Your task to perform on an android device: turn on location history Image 0: 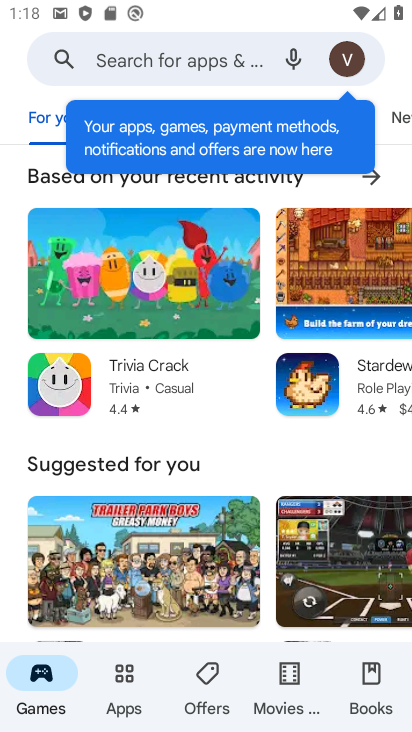
Step 0: press home button
Your task to perform on an android device: turn on location history Image 1: 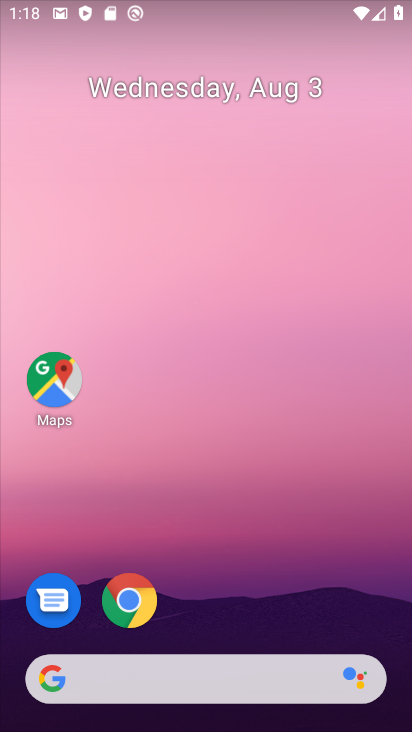
Step 1: drag from (251, 575) to (251, 4)
Your task to perform on an android device: turn on location history Image 2: 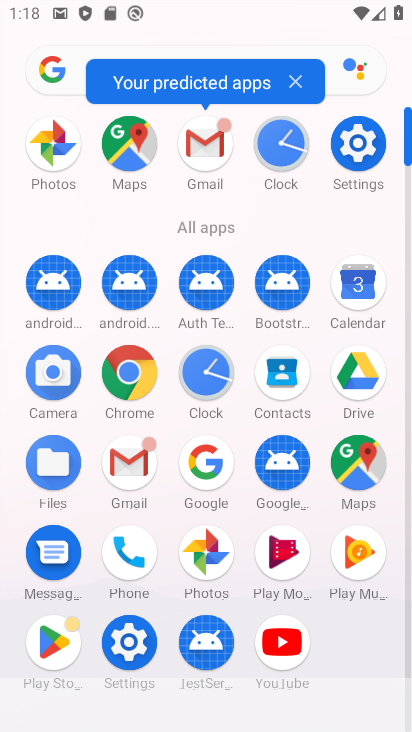
Step 2: click (358, 131)
Your task to perform on an android device: turn on location history Image 3: 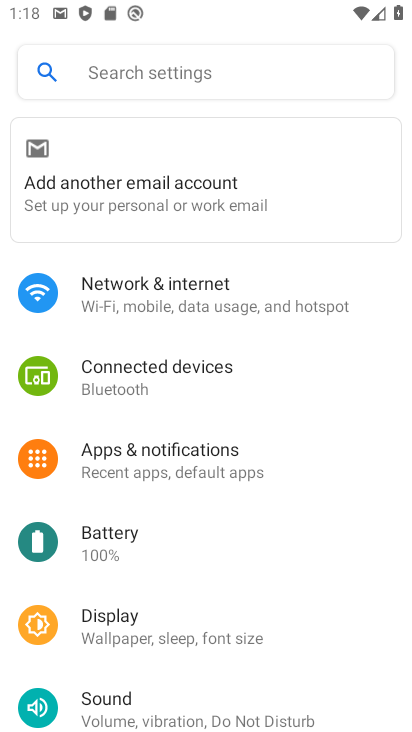
Step 3: drag from (188, 627) to (161, 119)
Your task to perform on an android device: turn on location history Image 4: 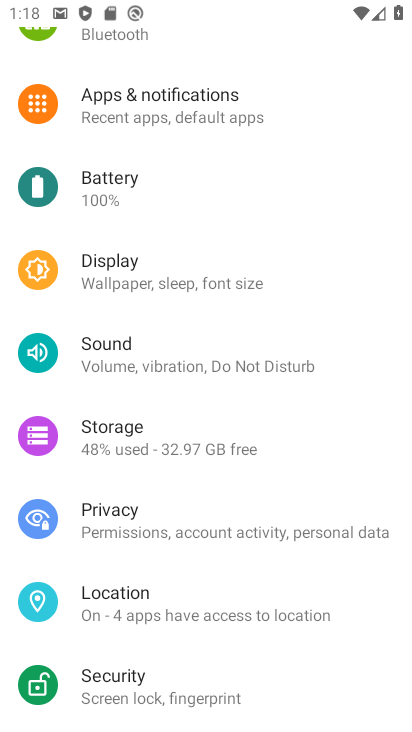
Step 4: click (121, 610)
Your task to perform on an android device: turn on location history Image 5: 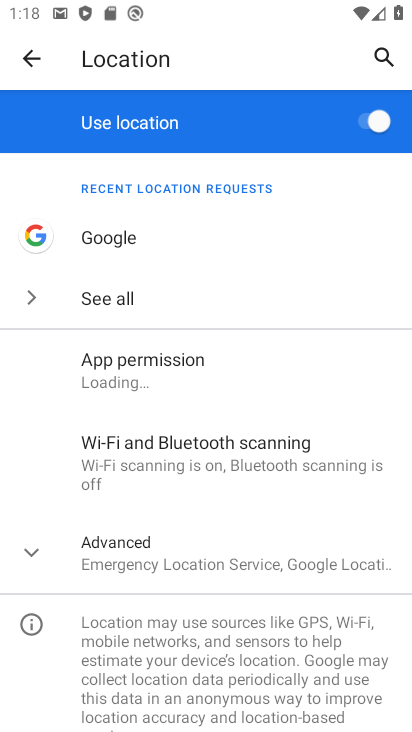
Step 5: click (227, 553)
Your task to perform on an android device: turn on location history Image 6: 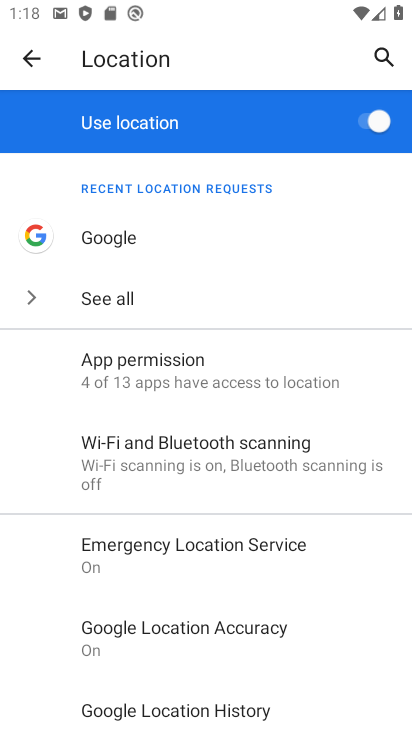
Step 6: click (209, 708)
Your task to perform on an android device: turn on location history Image 7: 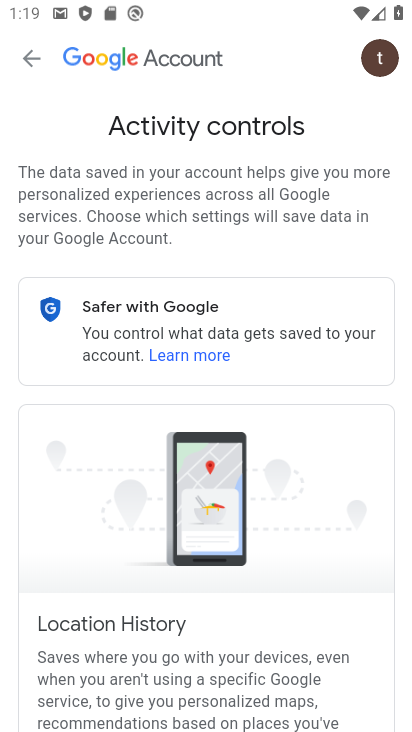
Step 7: click (220, 59)
Your task to perform on an android device: turn on location history Image 8: 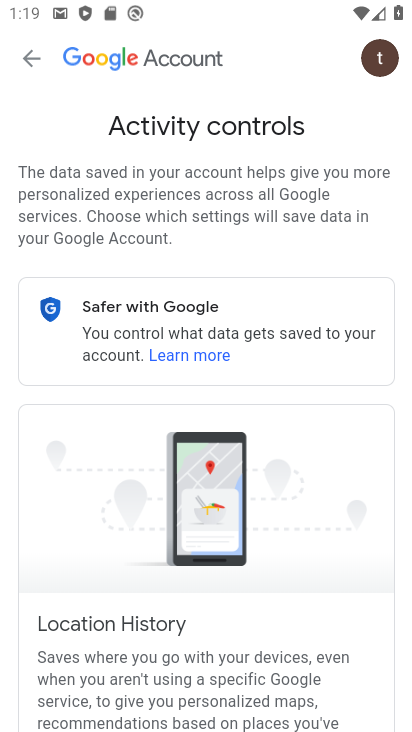
Step 8: task complete